Your task to perform on an android device: Open calendar and show me the third week of next month Image 0: 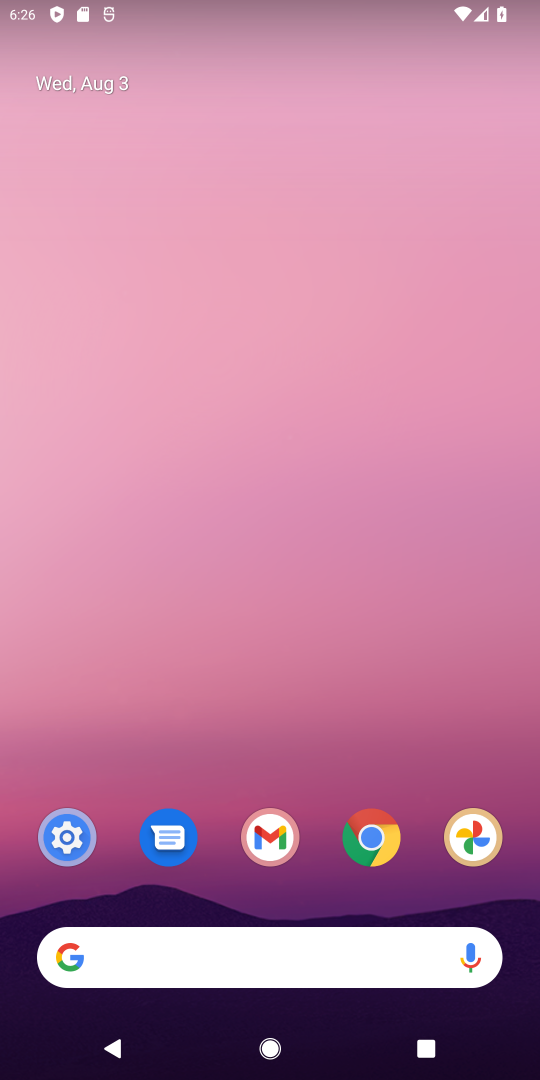
Step 0: drag from (250, 769) to (263, 56)
Your task to perform on an android device: Open calendar and show me the third week of next month Image 1: 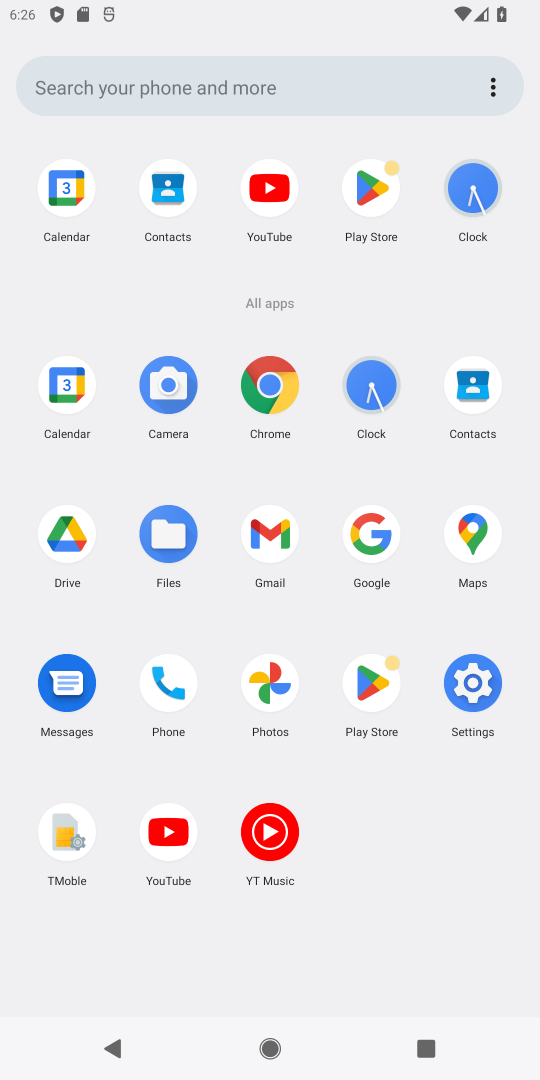
Step 1: click (67, 379)
Your task to perform on an android device: Open calendar and show me the third week of next month Image 2: 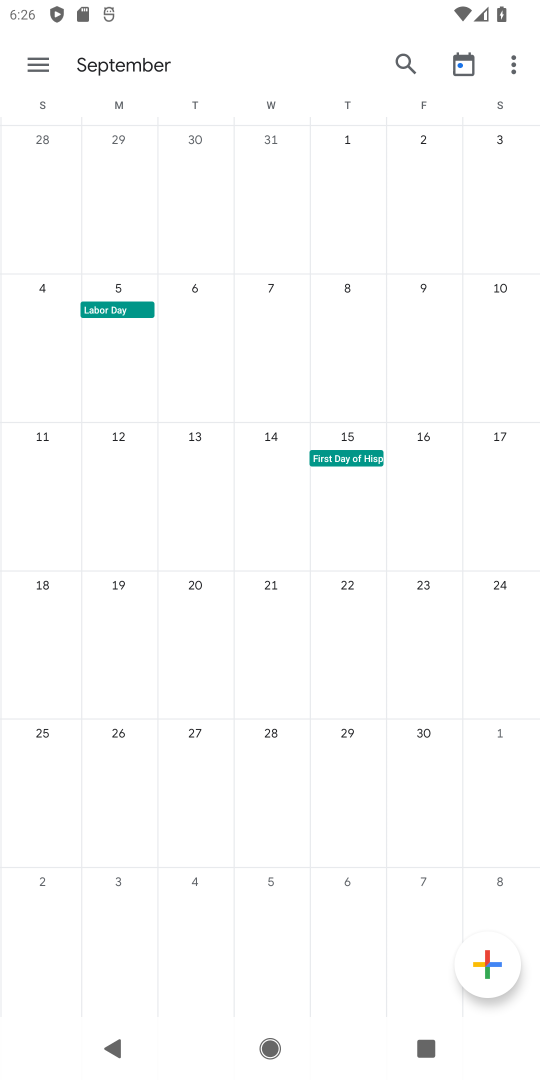
Step 2: task complete